Your task to perform on an android device: empty trash in the gmail app Image 0: 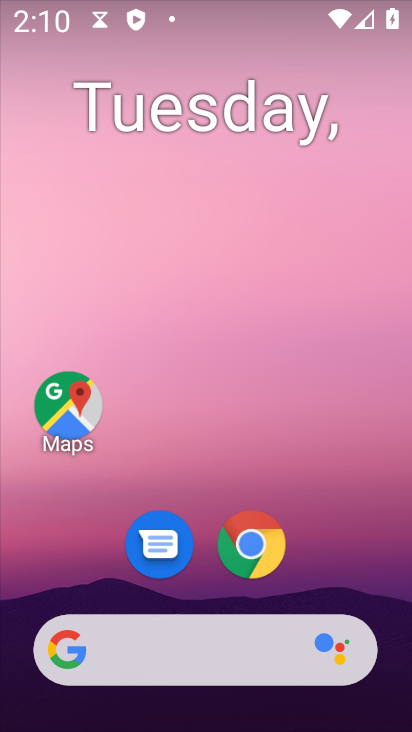
Step 0: drag from (306, 496) to (206, 44)
Your task to perform on an android device: empty trash in the gmail app Image 1: 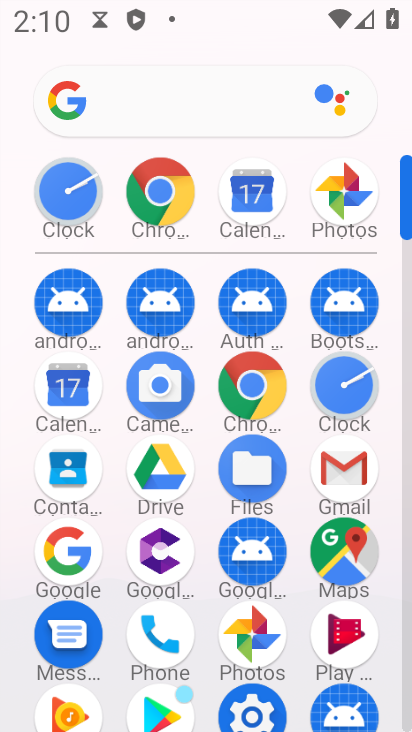
Step 1: drag from (4, 483) to (7, 269)
Your task to perform on an android device: empty trash in the gmail app Image 2: 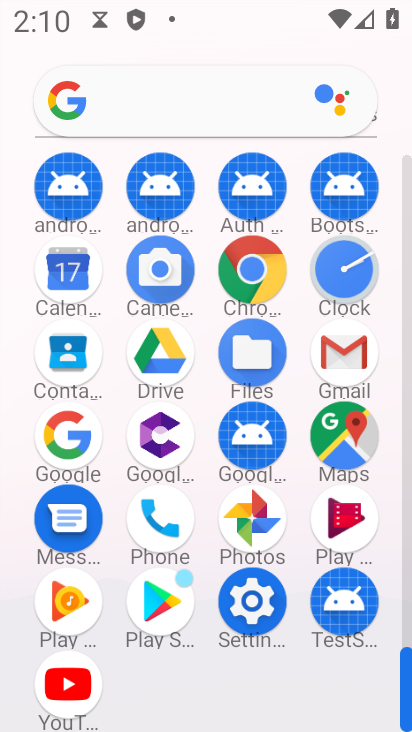
Step 2: click (341, 348)
Your task to perform on an android device: empty trash in the gmail app Image 3: 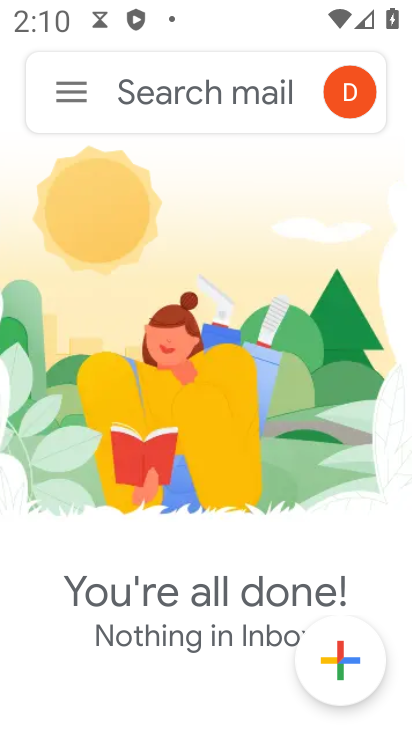
Step 3: click (57, 88)
Your task to perform on an android device: empty trash in the gmail app Image 4: 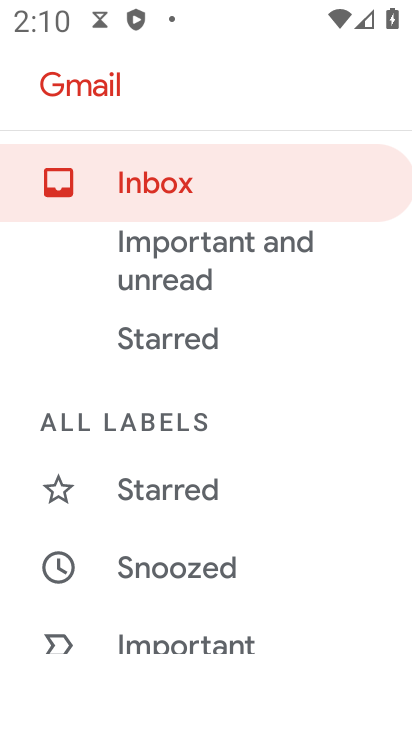
Step 4: drag from (204, 617) to (216, 199)
Your task to perform on an android device: empty trash in the gmail app Image 5: 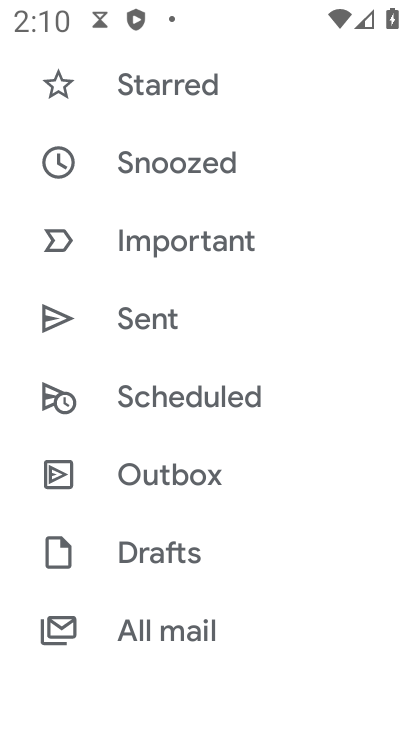
Step 5: drag from (210, 585) to (210, 269)
Your task to perform on an android device: empty trash in the gmail app Image 6: 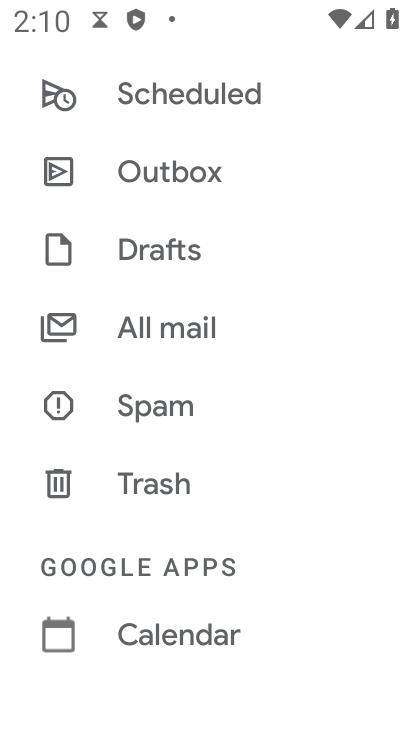
Step 6: click (169, 486)
Your task to perform on an android device: empty trash in the gmail app Image 7: 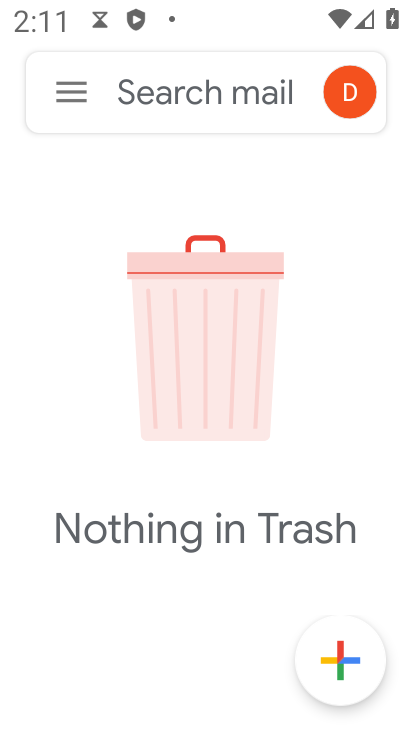
Step 7: task complete